Your task to perform on an android device: change notification settings in the gmail app Image 0: 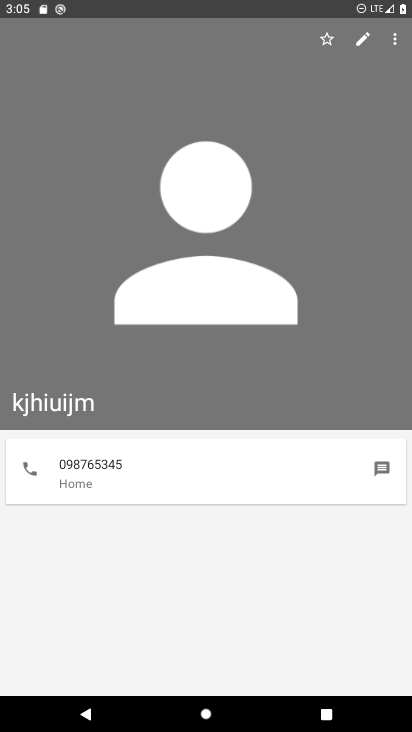
Step 0: press home button
Your task to perform on an android device: change notification settings in the gmail app Image 1: 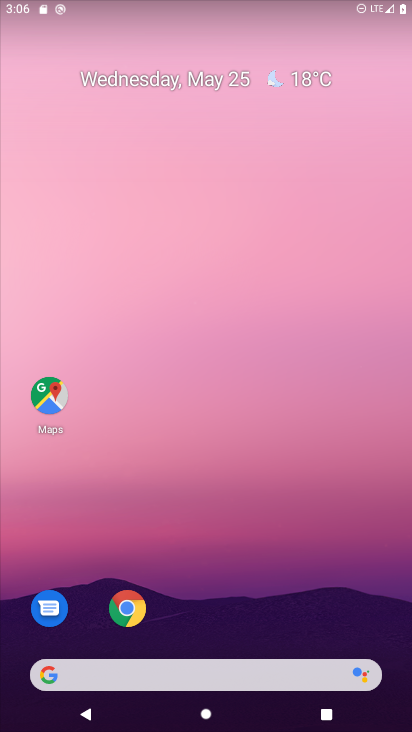
Step 1: drag from (390, 630) to (289, 55)
Your task to perform on an android device: change notification settings in the gmail app Image 2: 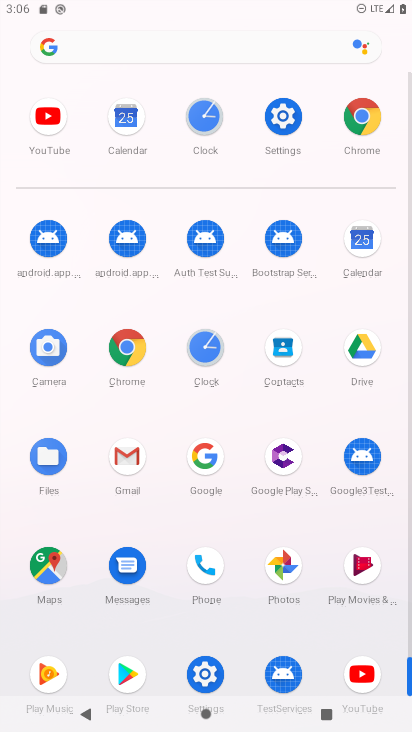
Step 2: click (124, 456)
Your task to perform on an android device: change notification settings in the gmail app Image 3: 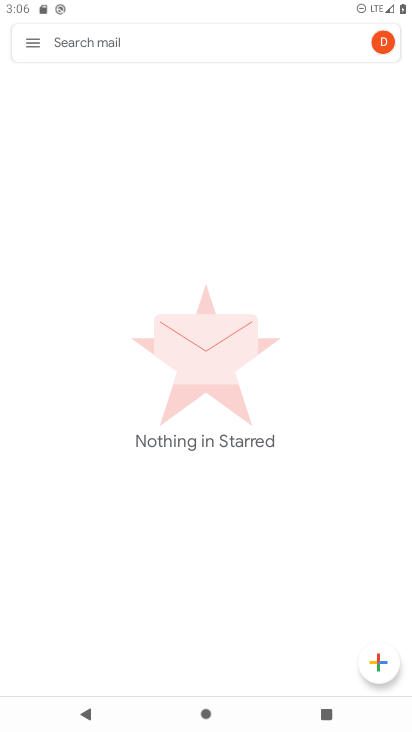
Step 3: click (31, 37)
Your task to perform on an android device: change notification settings in the gmail app Image 4: 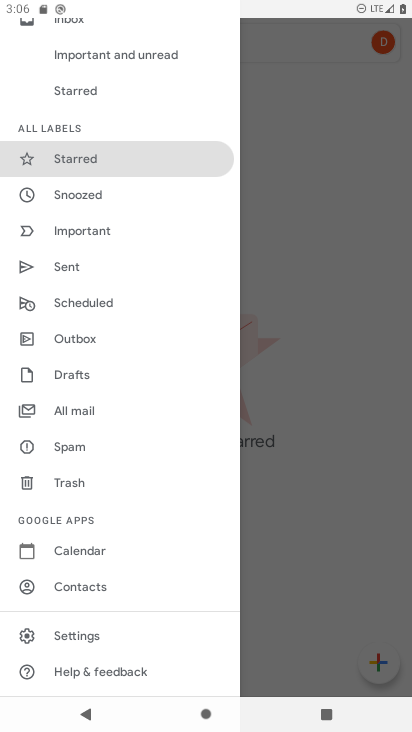
Step 4: click (89, 637)
Your task to perform on an android device: change notification settings in the gmail app Image 5: 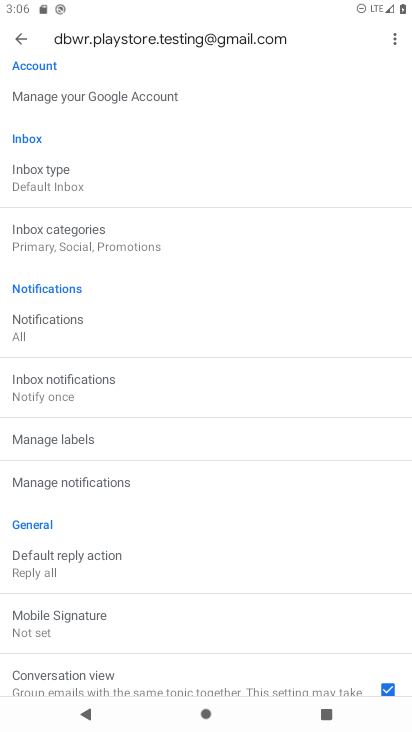
Step 5: click (77, 478)
Your task to perform on an android device: change notification settings in the gmail app Image 6: 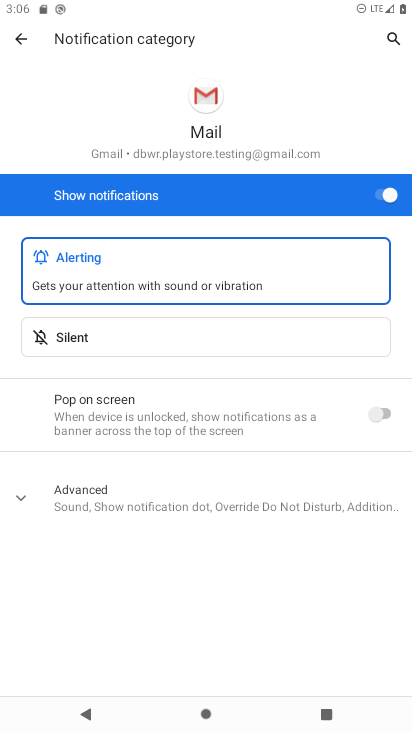
Step 6: click (377, 191)
Your task to perform on an android device: change notification settings in the gmail app Image 7: 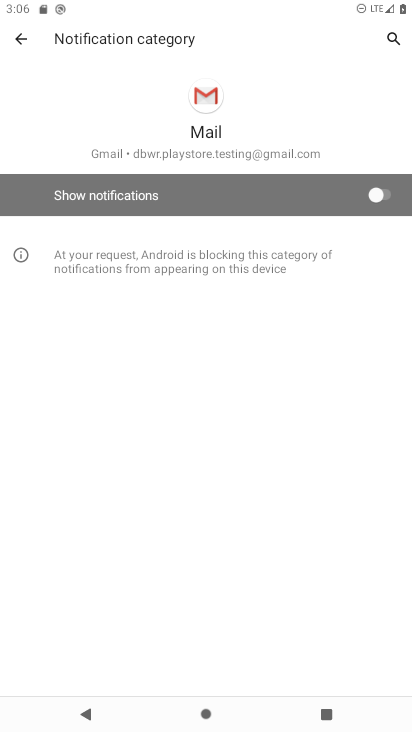
Step 7: task complete